Your task to perform on an android device: open the mobile data screen to see how much data has been used Image 0: 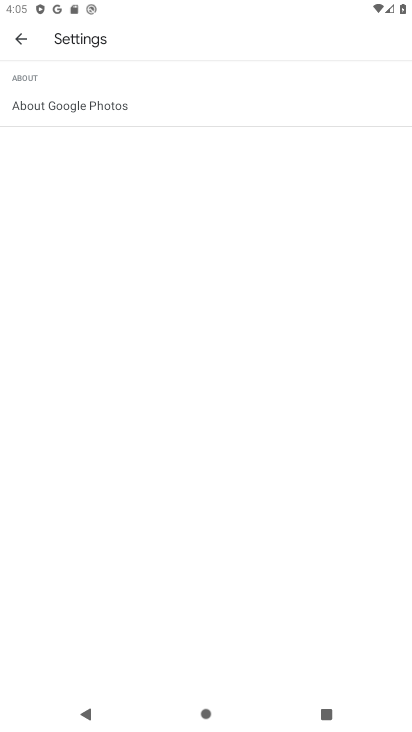
Step 0: press home button
Your task to perform on an android device: open the mobile data screen to see how much data has been used Image 1: 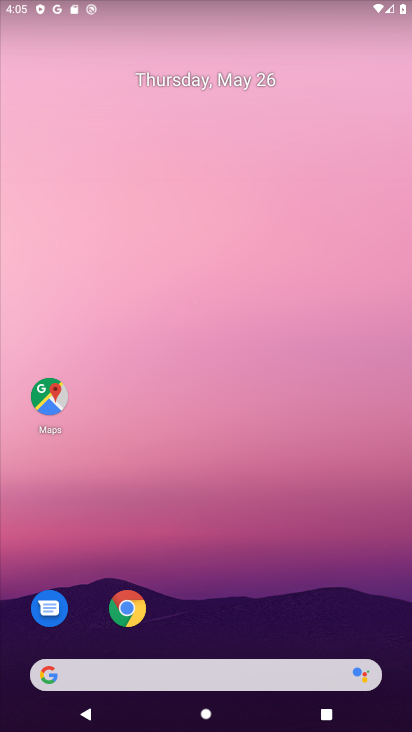
Step 1: drag from (264, 699) to (318, 151)
Your task to perform on an android device: open the mobile data screen to see how much data has been used Image 2: 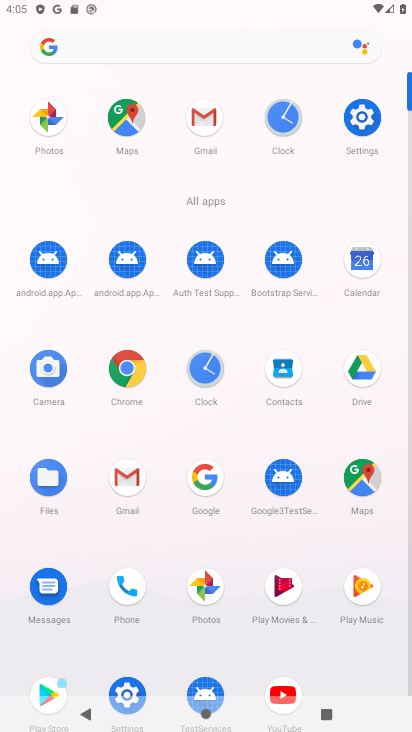
Step 2: click (356, 126)
Your task to perform on an android device: open the mobile data screen to see how much data has been used Image 3: 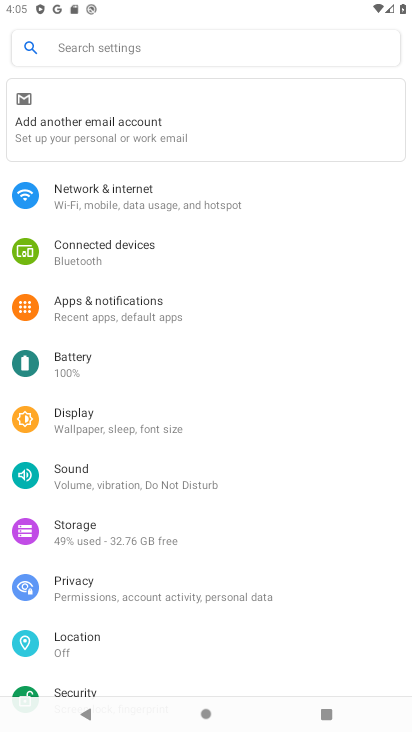
Step 3: click (147, 56)
Your task to perform on an android device: open the mobile data screen to see how much data has been used Image 4: 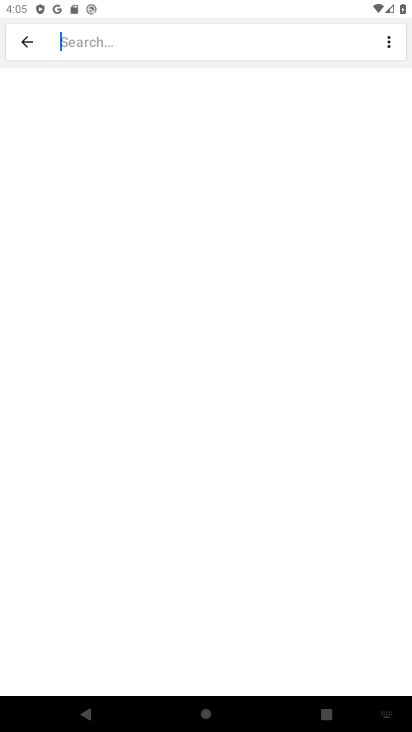
Step 4: drag from (387, 704) to (354, 526)
Your task to perform on an android device: open the mobile data screen to see how much data has been used Image 5: 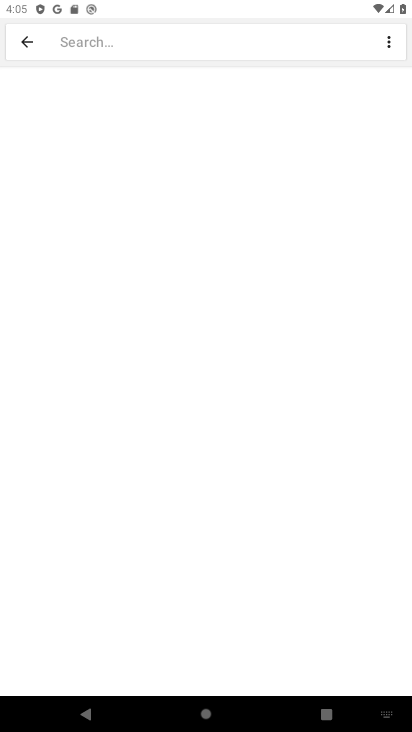
Step 5: click (393, 720)
Your task to perform on an android device: open the mobile data screen to see how much data has been used Image 6: 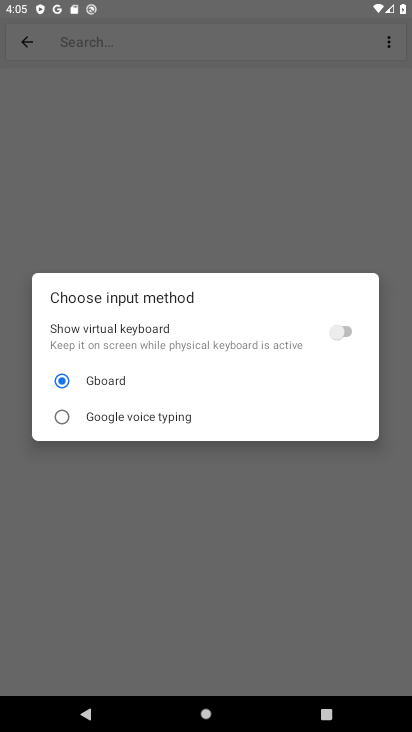
Step 6: click (346, 330)
Your task to perform on an android device: open the mobile data screen to see how much data has been used Image 7: 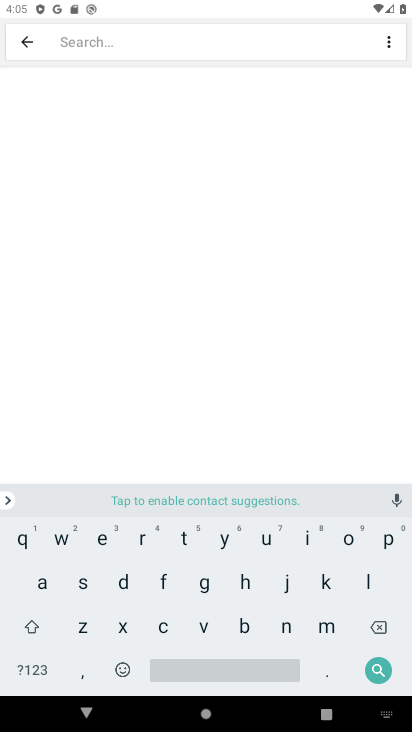
Step 7: click (117, 573)
Your task to perform on an android device: open the mobile data screen to see how much data has been used Image 8: 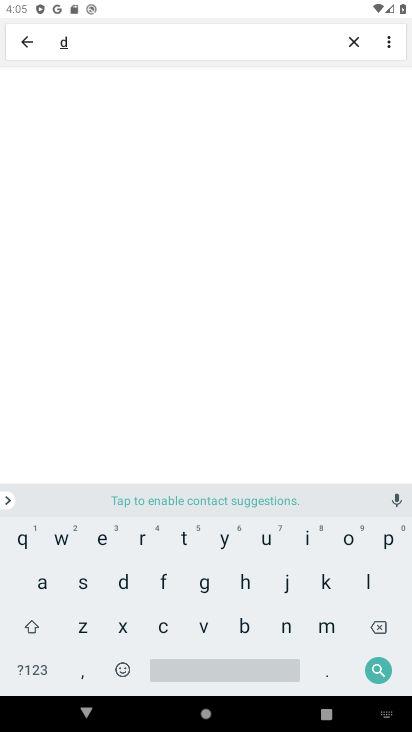
Step 8: click (36, 580)
Your task to perform on an android device: open the mobile data screen to see how much data has been used Image 9: 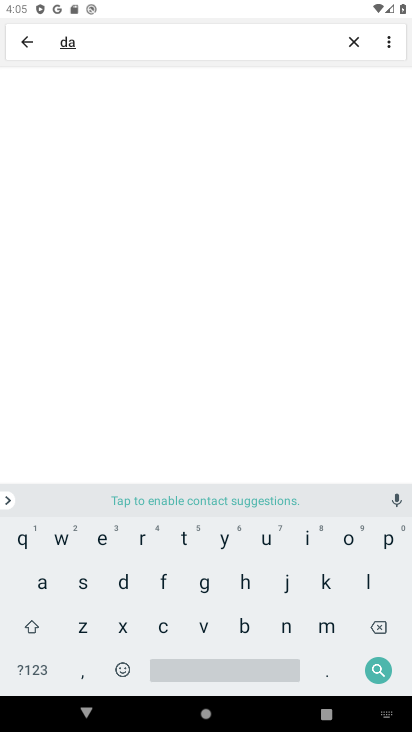
Step 9: click (183, 533)
Your task to perform on an android device: open the mobile data screen to see how much data has been used Image 10: 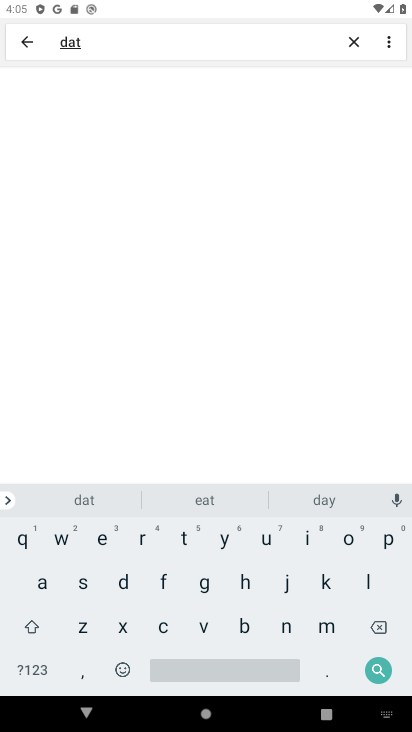
Step 10: click (36, 583)
Your task to perform on an android device: open the mobile data screen to see how much data has been used Image 11: 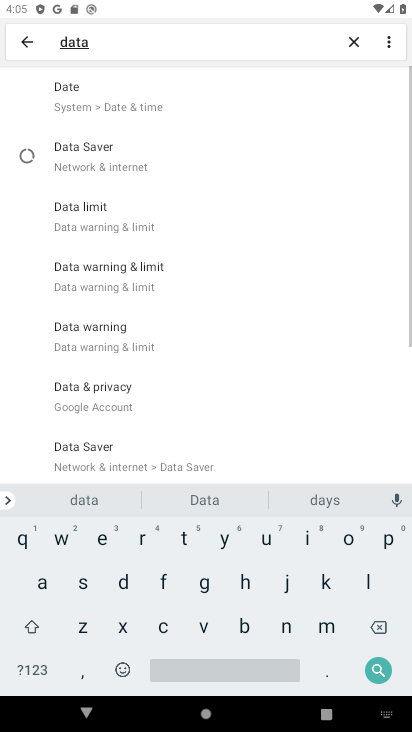
Step 11: click (209, 672)
Your task to perform on an android device: open the mobile data screen to see how much data has been used Image 12: 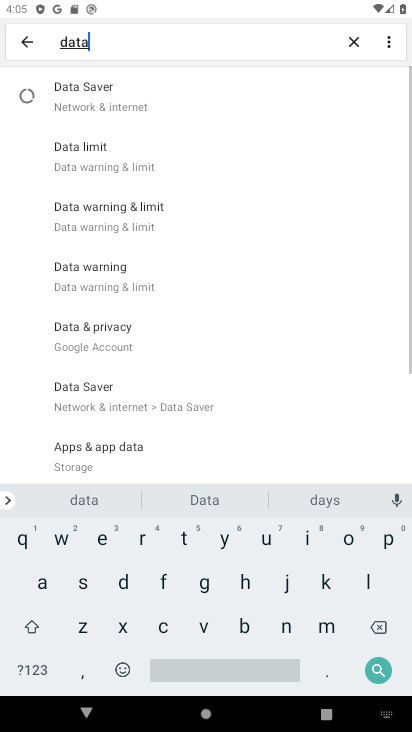
Step 12: click (267, 540)
Your task to perform on an android device: open the mobile data screen to see how much data has been used Image 13: 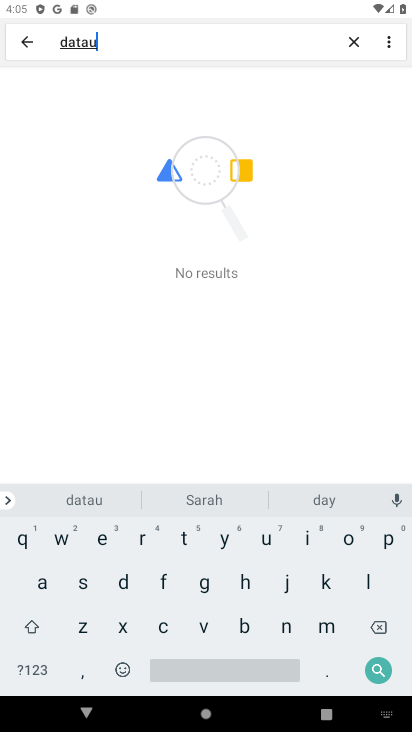
Step 13: click (379, 621)
Your task to perform on an android device: open the mobile data screen to see how much data has been used Image 14: 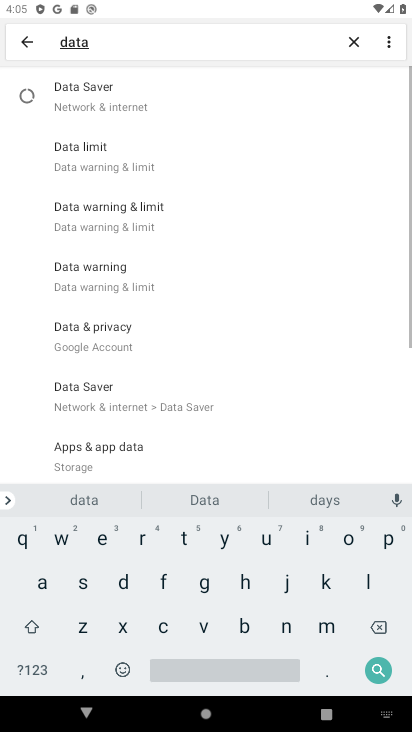
Step 14: click (247, 663)
Your task to perform on an android device: open the mobile data screen to see how much data has been used Image 15: 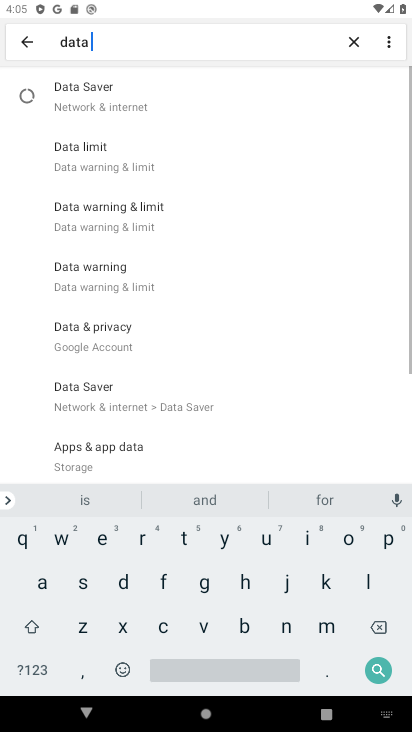
Step 15: click (264, 544)
Your task to perform on an android device: open the mobile data screen to see how much data has been used Image 16: 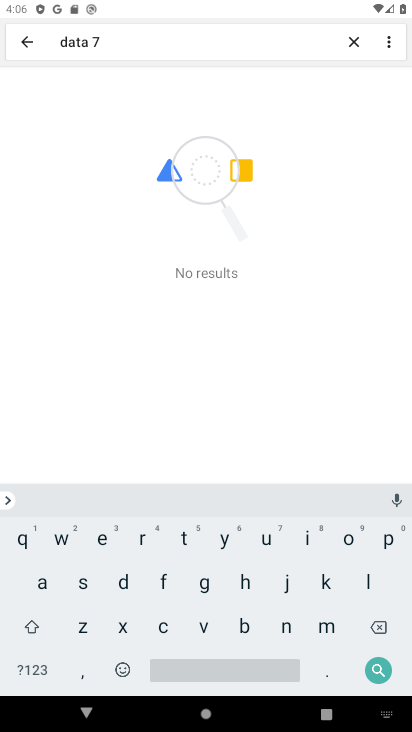
Step 16: click (381, 615)
Your task to perform on an android device: open the mobile data screen to see how much data has been used Image 17: 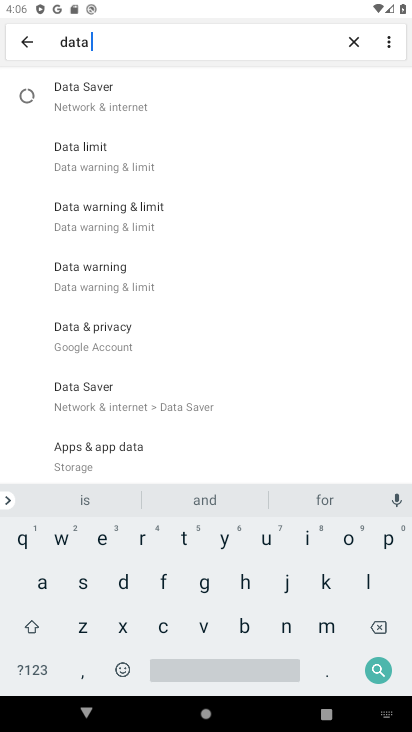
Step 17: click (262, 541)
Your task to perform on an android device: open the mobile data screen to see how much data has been used Image 18: 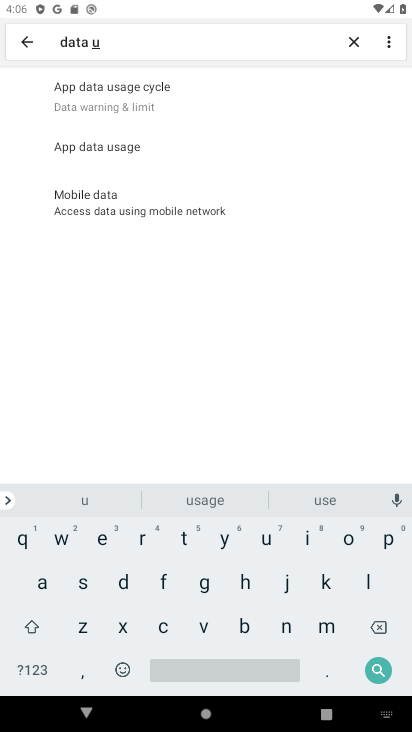
Step 18: click (126, 137)
Your task to perform on an android device: open the mobile data screen to see how much data has been used Image 19: 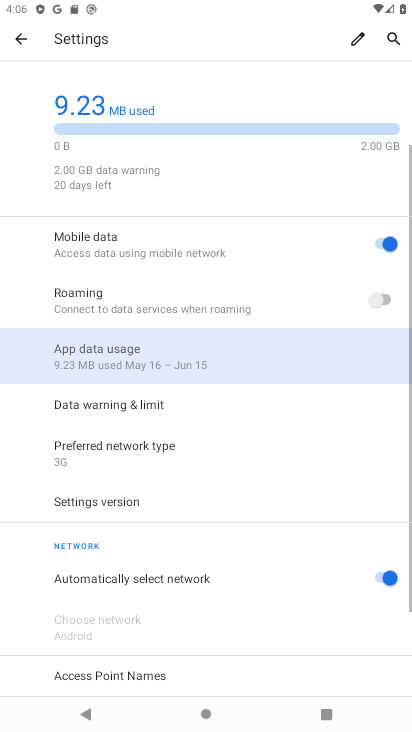
Step 19: click (117, 144)
Your task to perform on an android device: open the mobile data screen to see how much data has been used Image 20: 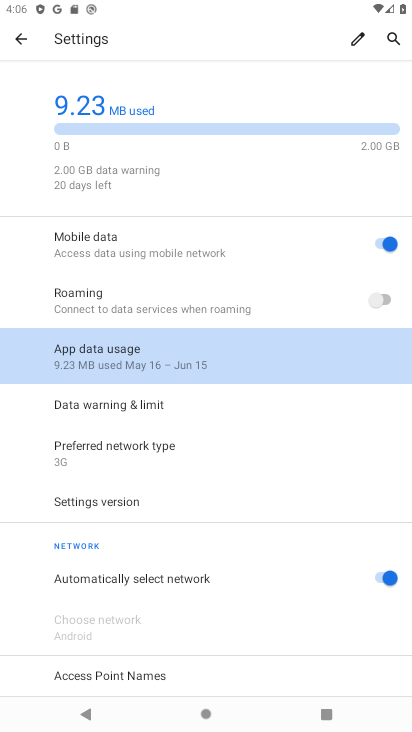
Step 20: click (98, 349)
Your task to perform on an android device: open the mobile data screen to see how much data has been used Image 21: 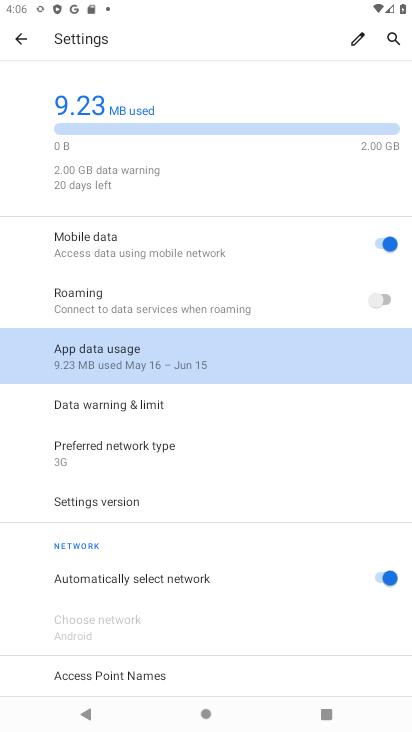
Step 21: task complete